Your task to perform on an android device: open app "Contacts" Image 0: 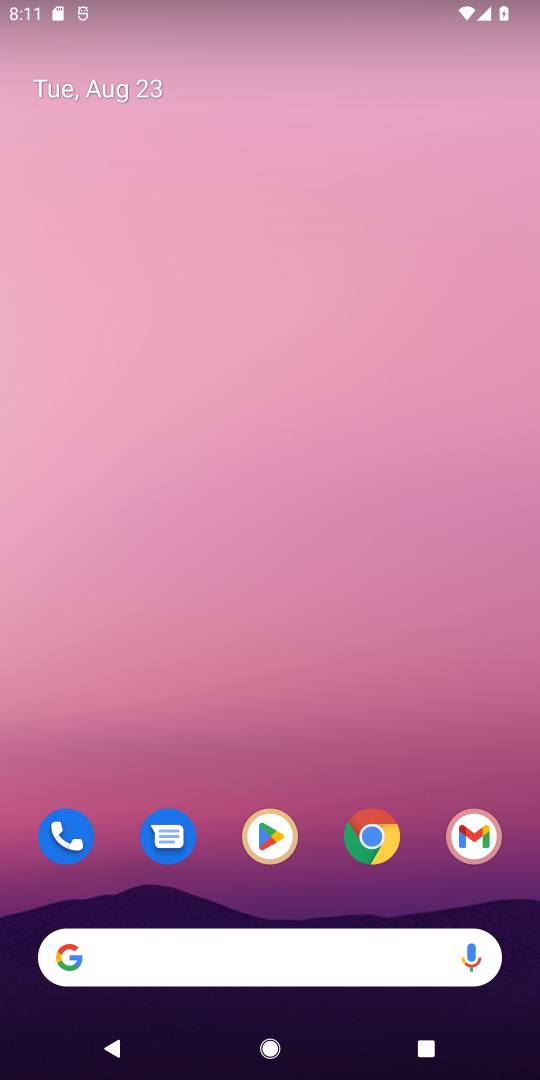
Step 0: click (263, 840)
Your task to perform on an android device: open app "Contacts" Image 1: 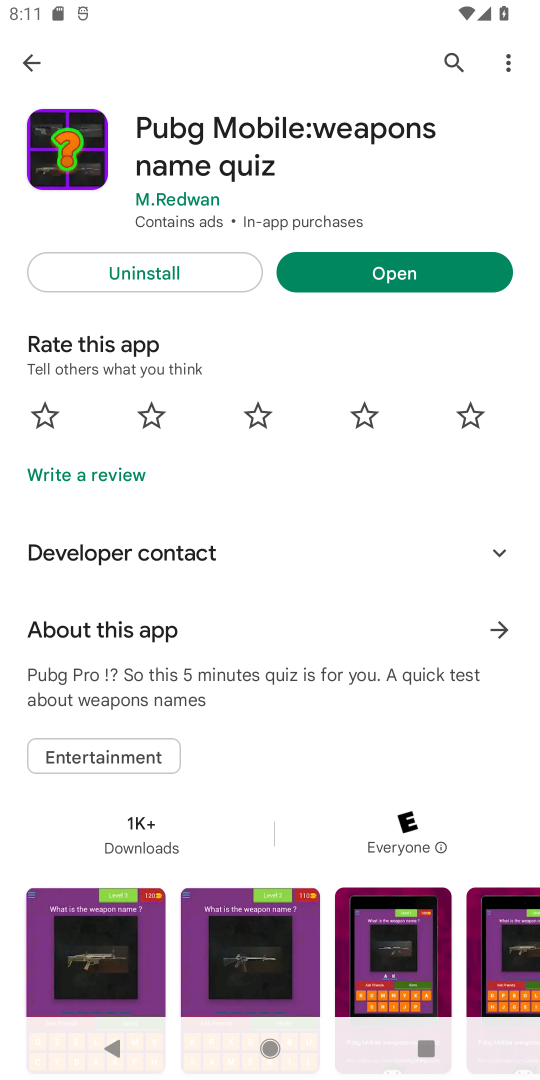
Step 1: click (449, 58)
Your task to perform on an android device: open app "Contacts" Image 2: 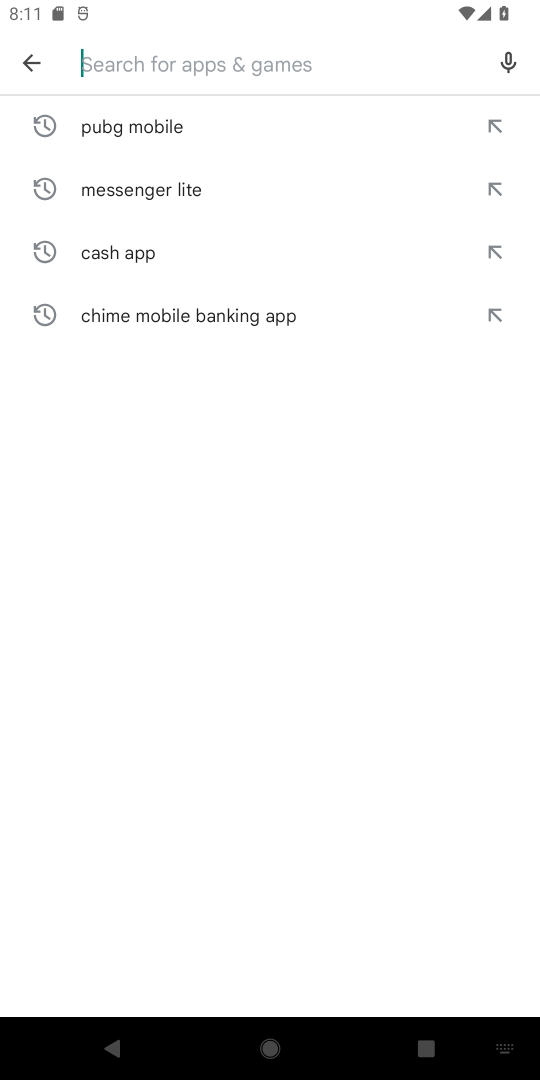
Step 2: type "Contacts"
Your task to perform on an android device: open app "Contacts" Image 3: 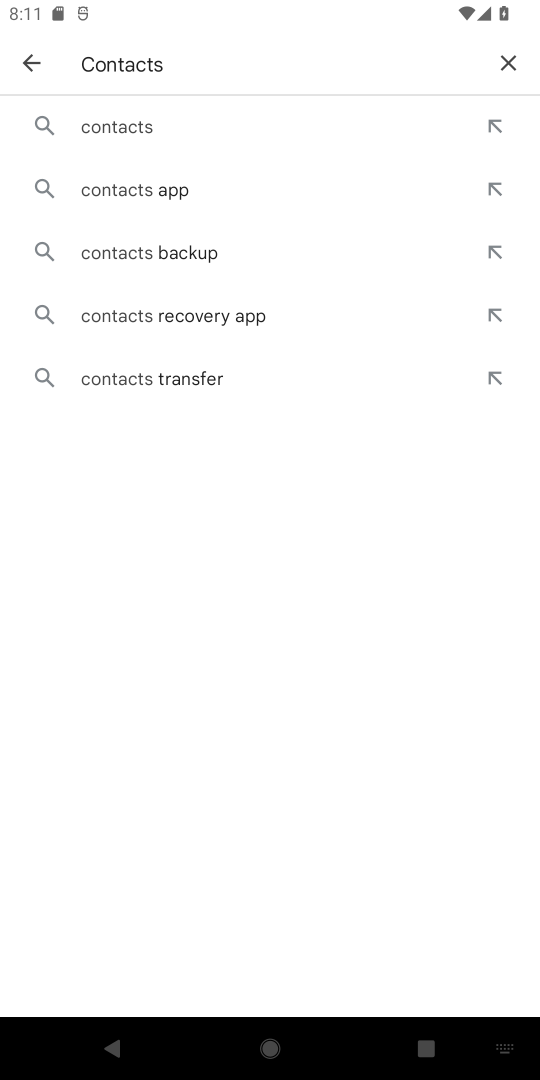
Step 3: click (109, 122)
Your task to perform on an android device: open app "Contacts" Image 4: 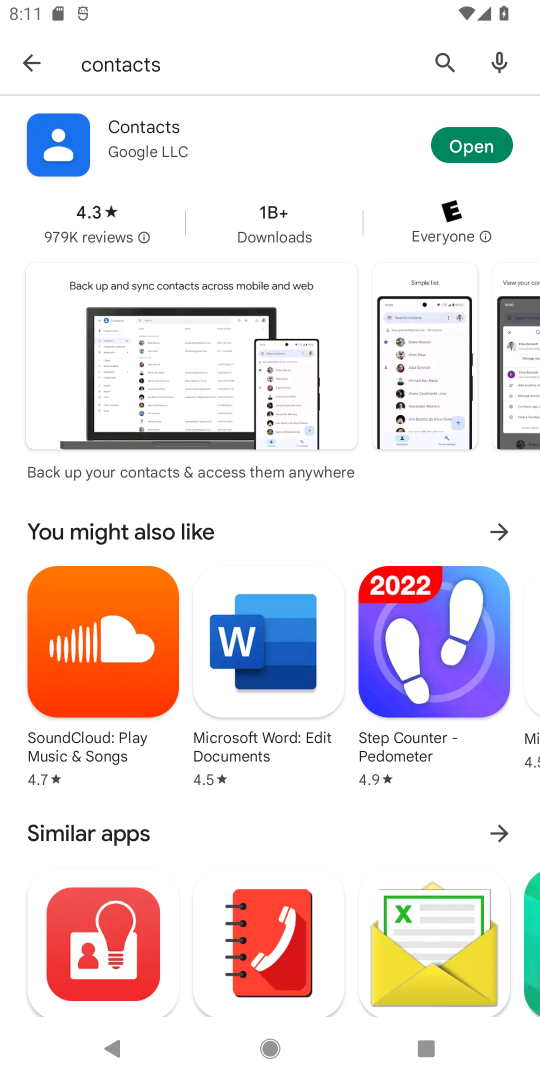
Step 4: click (462, 155)
Your task to perform on an android device: open app "Contacts" Image 5: 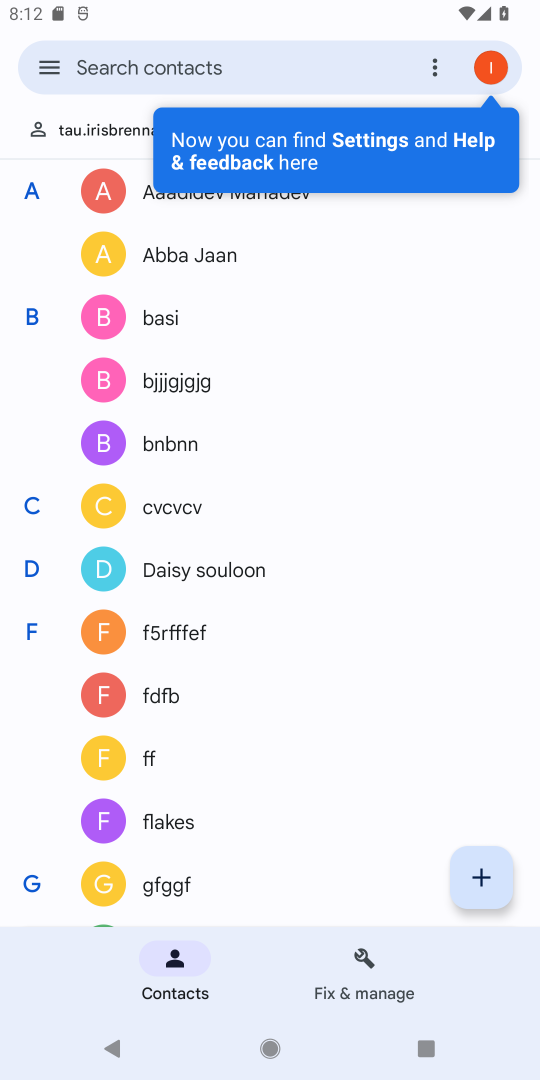
Step 5: task complete